Your task to perform on an android device: open app "Facebook" (install if not already installed) Image 0: 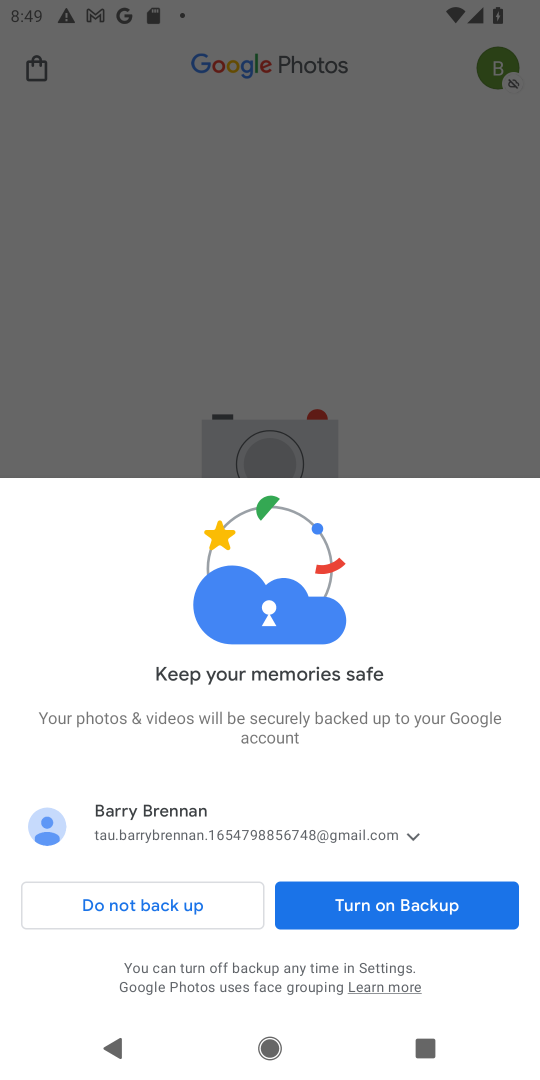
Step 0: press home button
Your task to perform on an android device: open app "Facebook" (install if not already installed) Image 1: 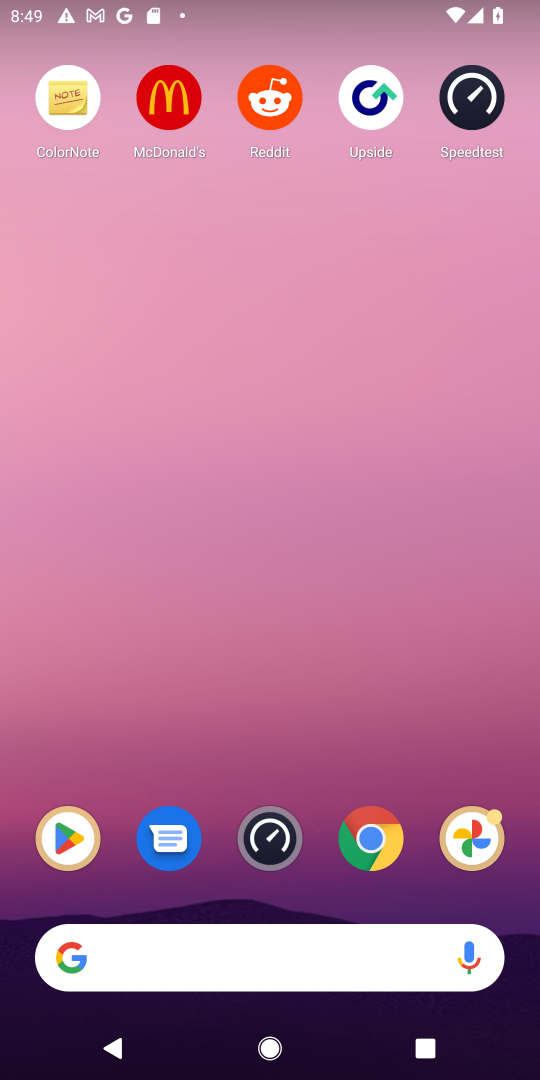
Step 1: drag from (302, 648) to (333, 93)
Your task to perform on an android device: open app "Facebook" (install if not already installed) Image 2: 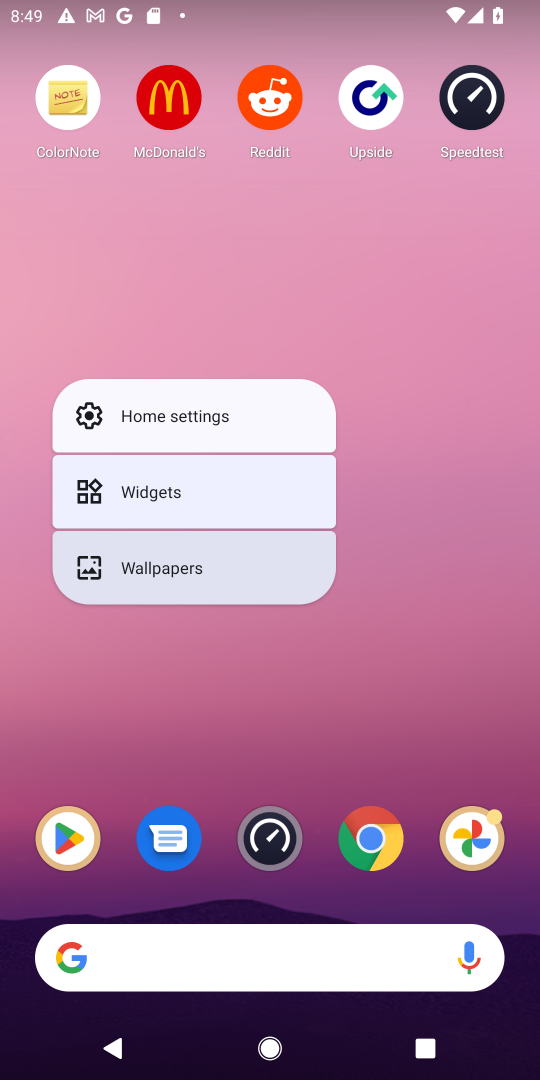
Step 2: click (426, 616)
Your task to perform on an android device: open app "Facebook" (install if not already installed) Image 3: 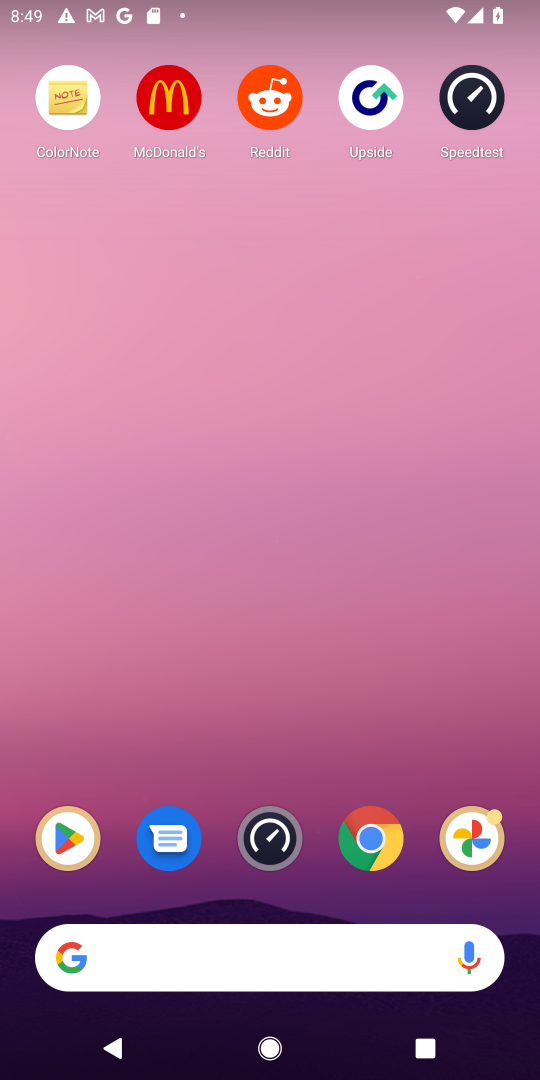
Step 3: drag from (302, 764) to (293, 40)
Your task to perform on an android device: open app "Facebook" (install if not already installed) Image 4: 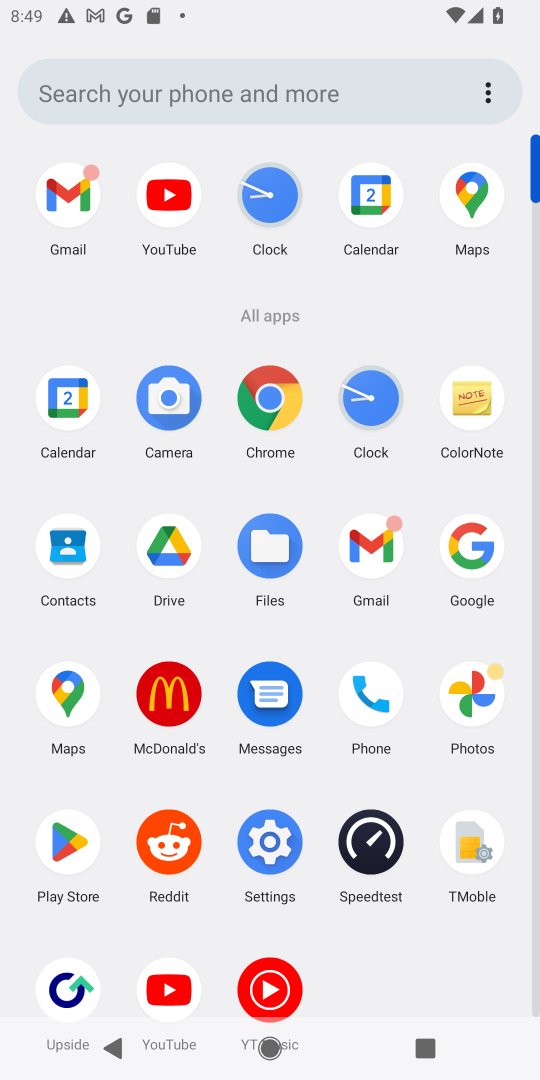
Step 4: click (69, 840)
Your task to perform on an android device: open app "Facebook" (install if not already installed) Image 5: 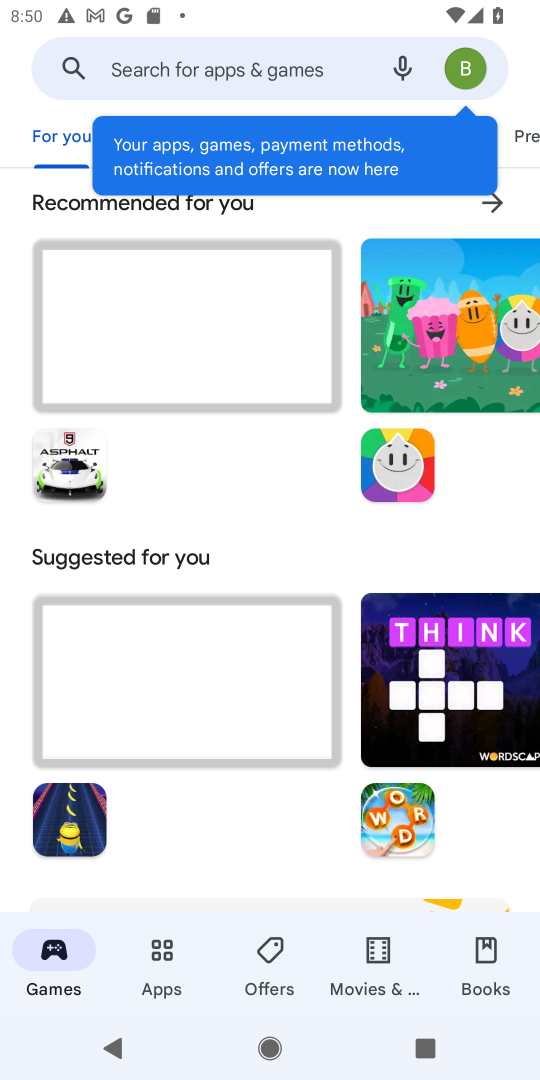
Step 5: click (320, 46)
Your task to perform on an android device: open app "Facebook" (install if not already installed) Image 6: 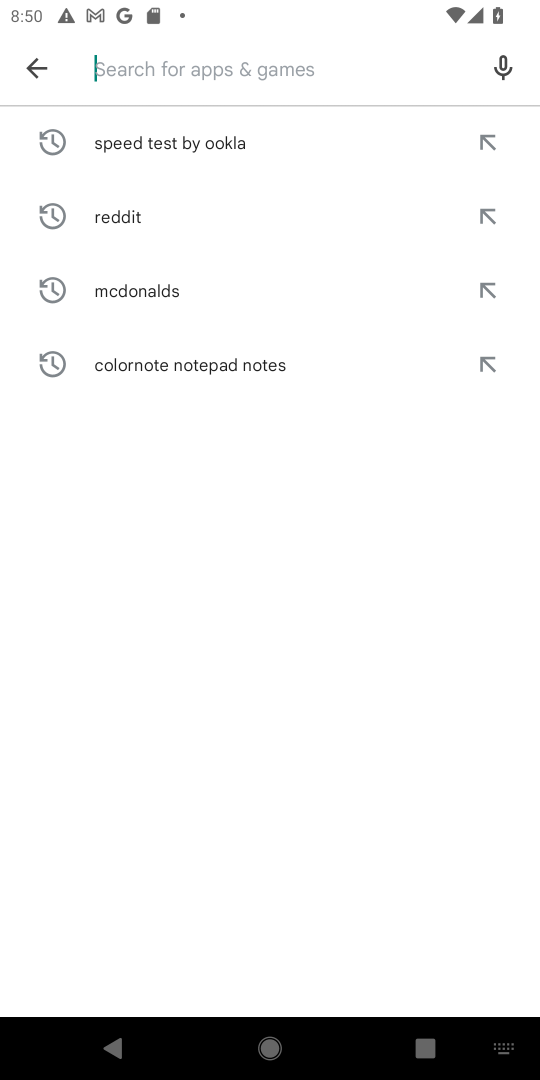
Step 6: type "facebook"
Your task to perform on an android device: open app "Facebook" (install if not already installed) Image 7: 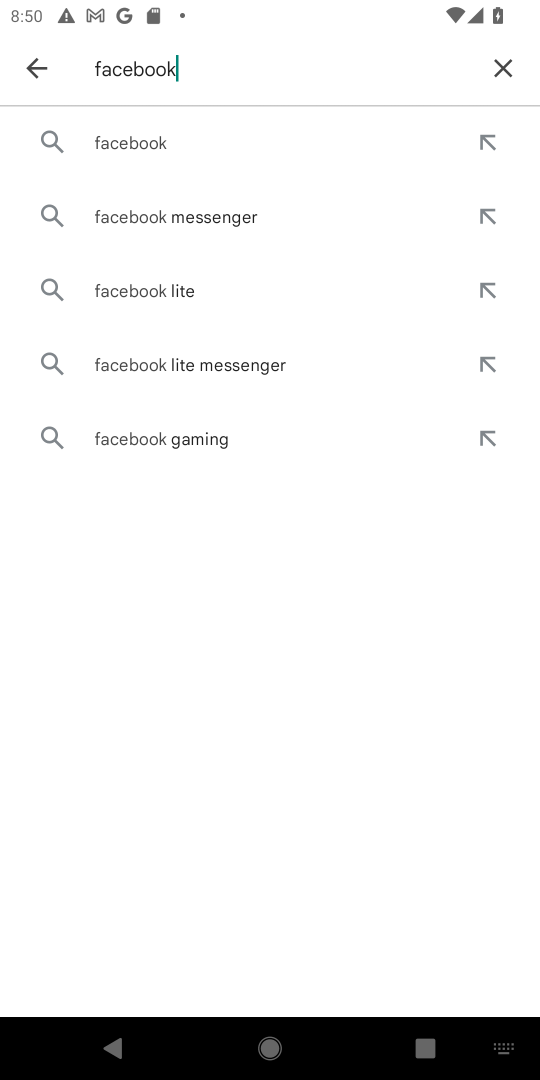
Step 7: click (261, 139)
Your task to perform on an android device: open app "Facebook" (install if not already installed) Image 8: 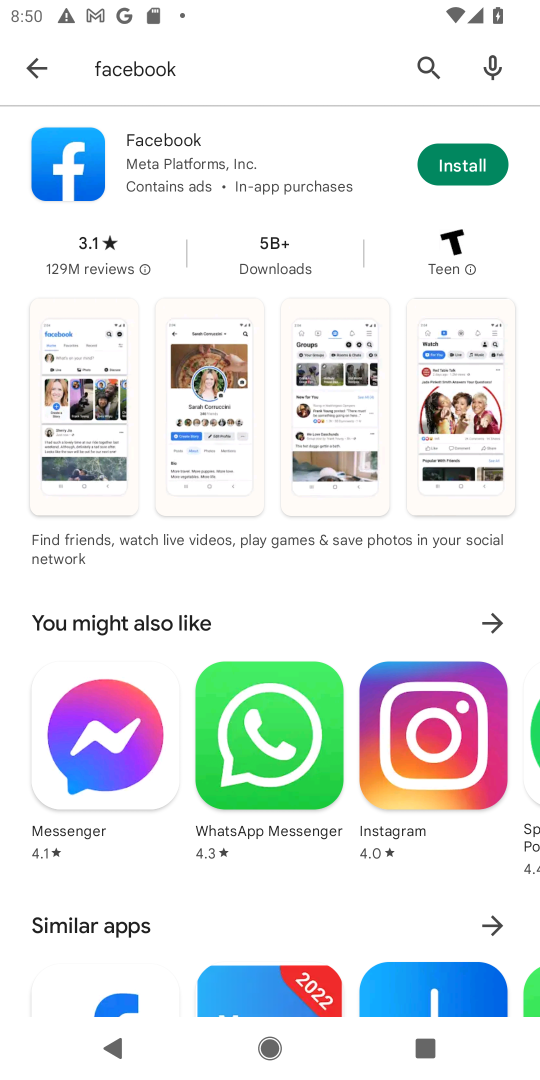
Step 8: click (460, 163)
Your task to perform on an android device: open app "Facebook" (install if not already installed) Image 9: 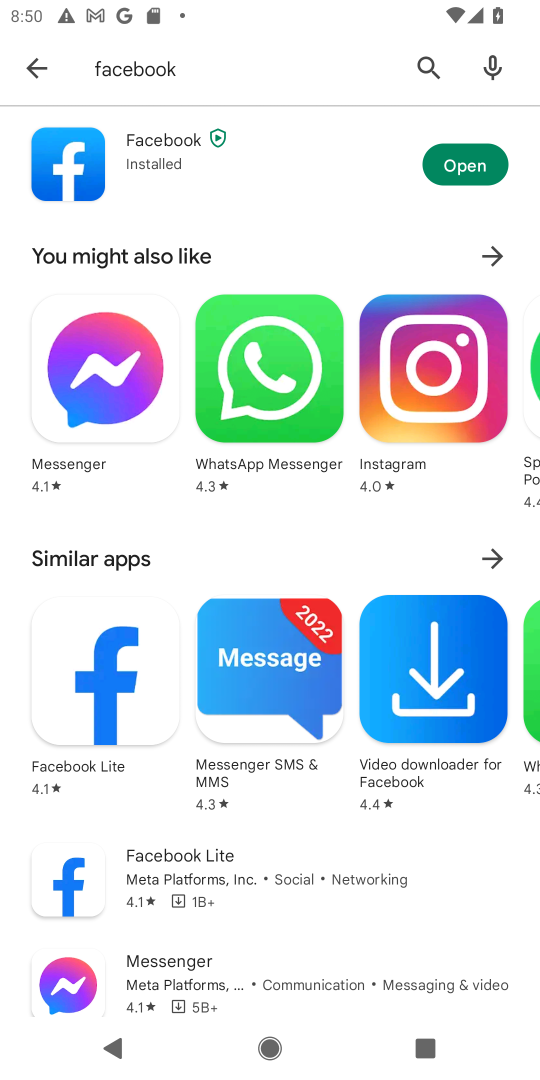
Step 9: click (467, 158)
Your task to perform on an android device: open app "Facebook" (install if not already installed) Image 10: 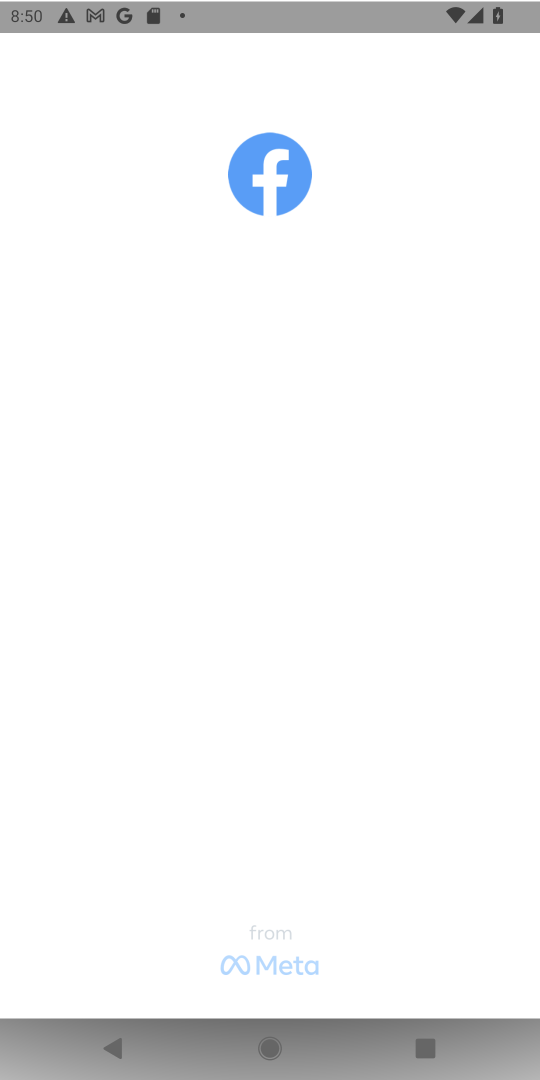
Step 10: task complete